Your task to perform on an android device: What's the weather going to be this weekend? Image 0: 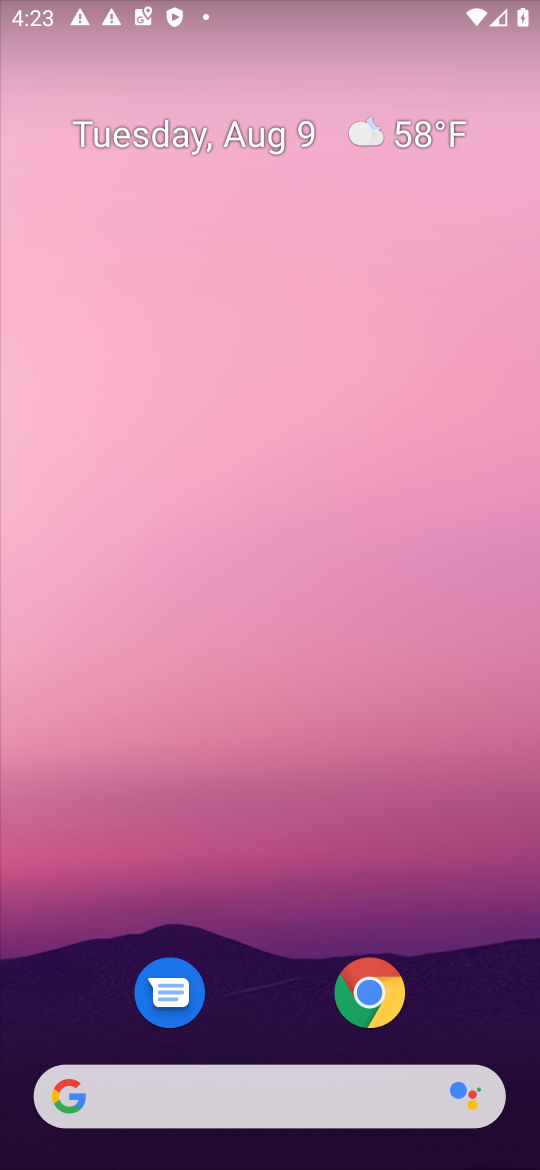
Step 0: drag from (241, 1088) to (496, 94)
Your task to perform on an android device: What's the weather going to be this weekend? Image 1: 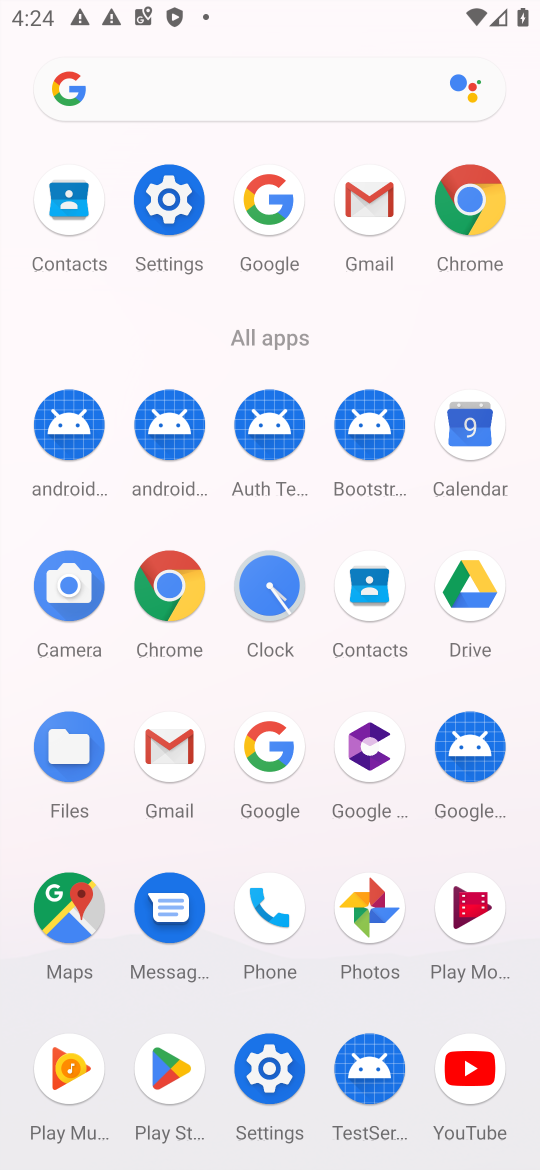
Step 1: click (275, 739)
Your task to perform on an android device: What's the weather going to be this weekend? Image 2: 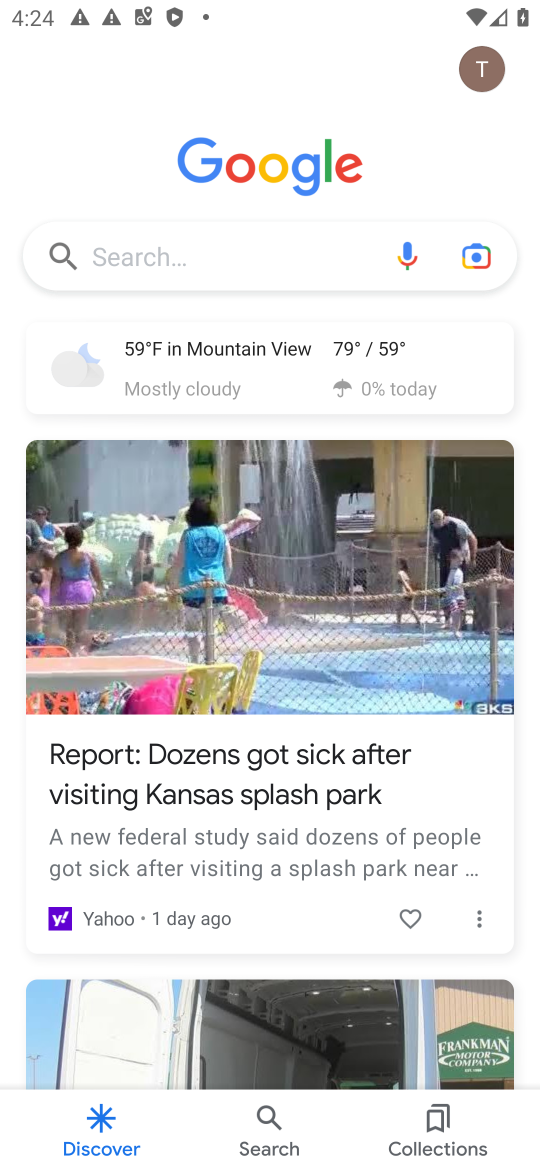
Step 2: click (178, 253)
Your task to perform on an android device: What's the weather going to be this weekend? Image 3: 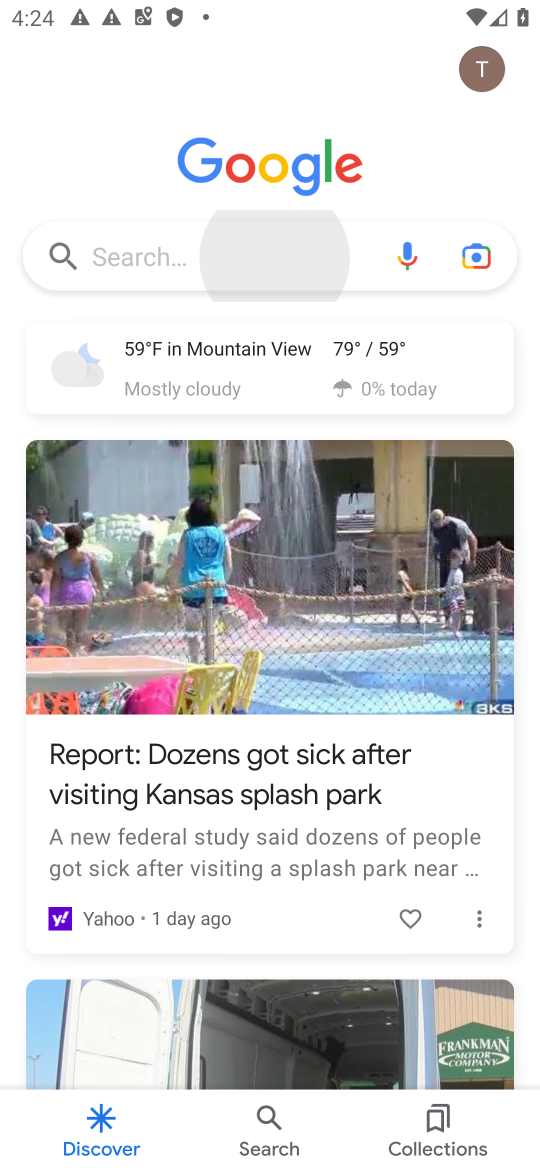
Step 3: click (178, 253)
Your task to perform on an android device: What's the weather going to be this weekend? Image 4: 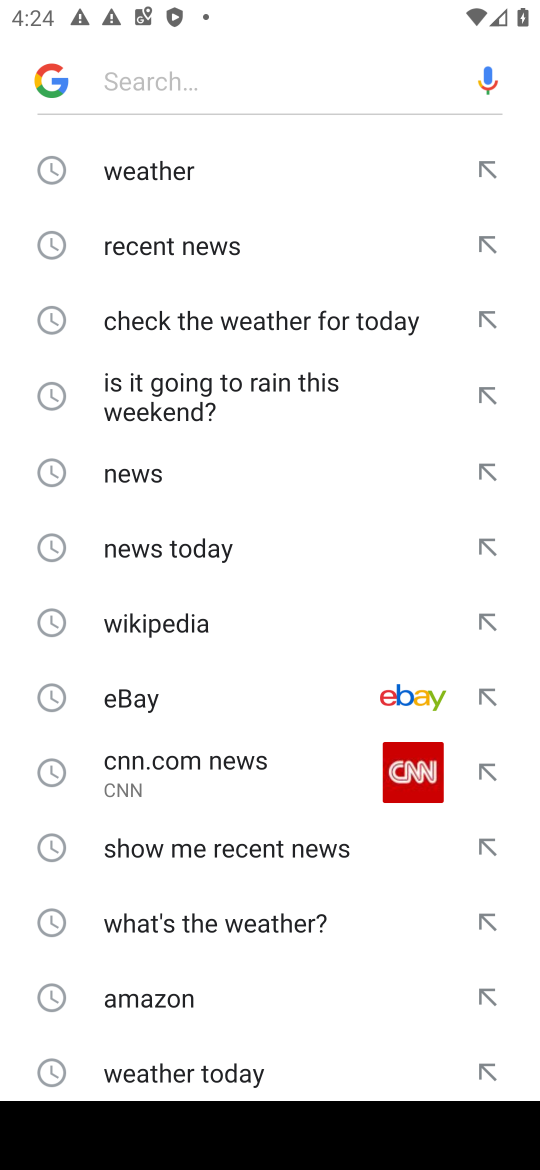
Step 4: type "weather going to be this weekend"
Your task to perform on an android device: What's the weather going to be this weekend? Image 5: 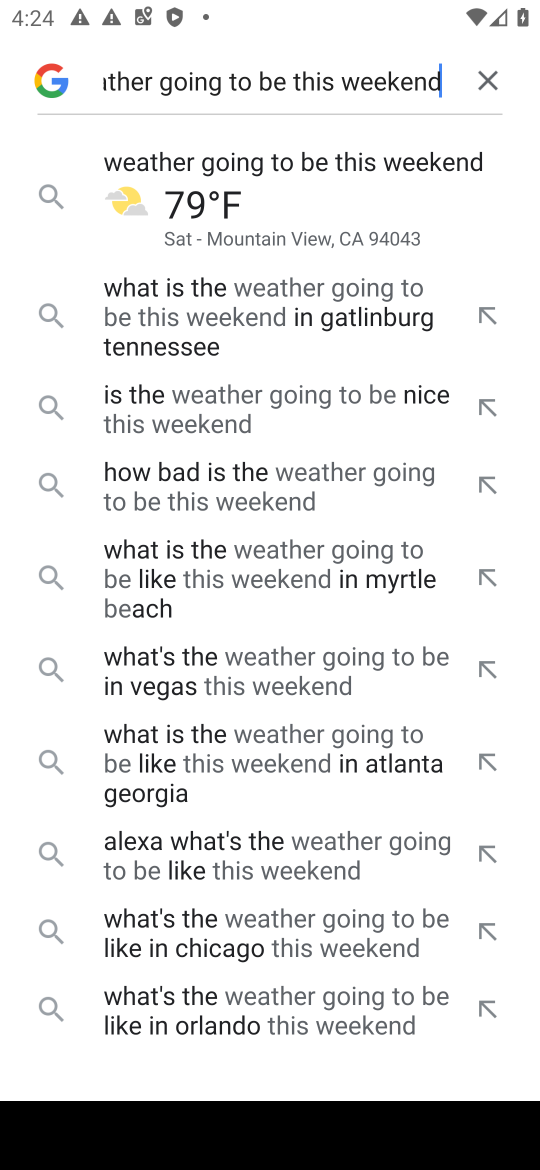
Step 5: click (387, 203)
Your task to perform on an android device: What's the weather going to be this weekend? Image 6: 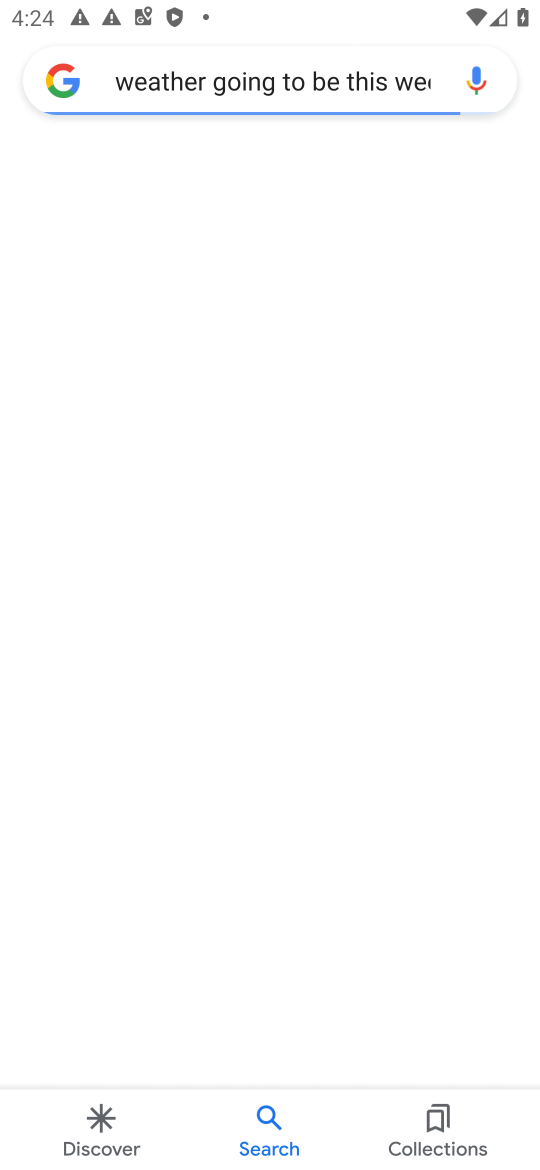
Step 6: task complete